Your task to perform on an android device: turn off sleep mode Image 0: 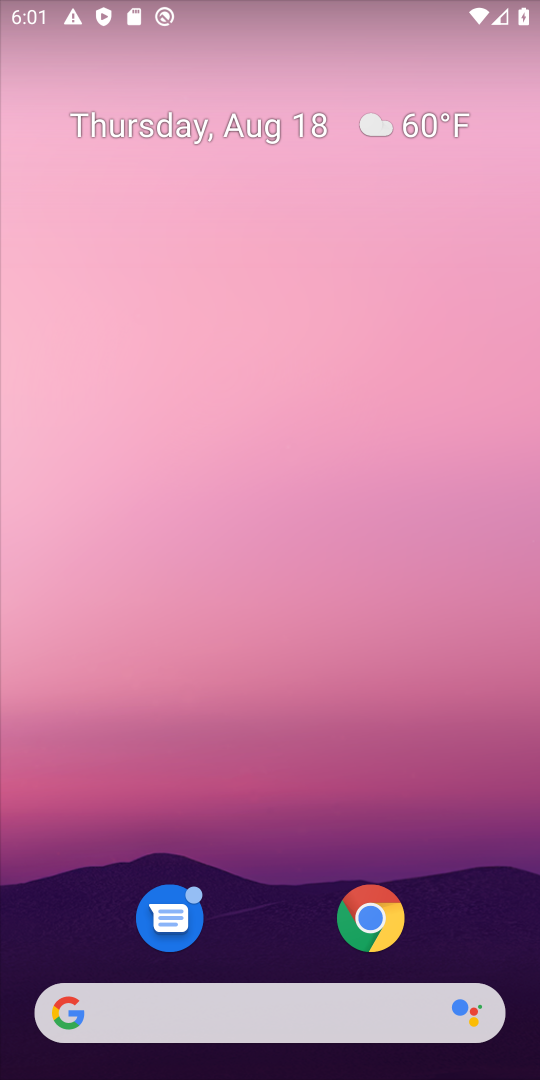
Step 0: drag from (301, 838) to (356, 26)
Your task to perform on an android device: turn off sleep mode Image 1: 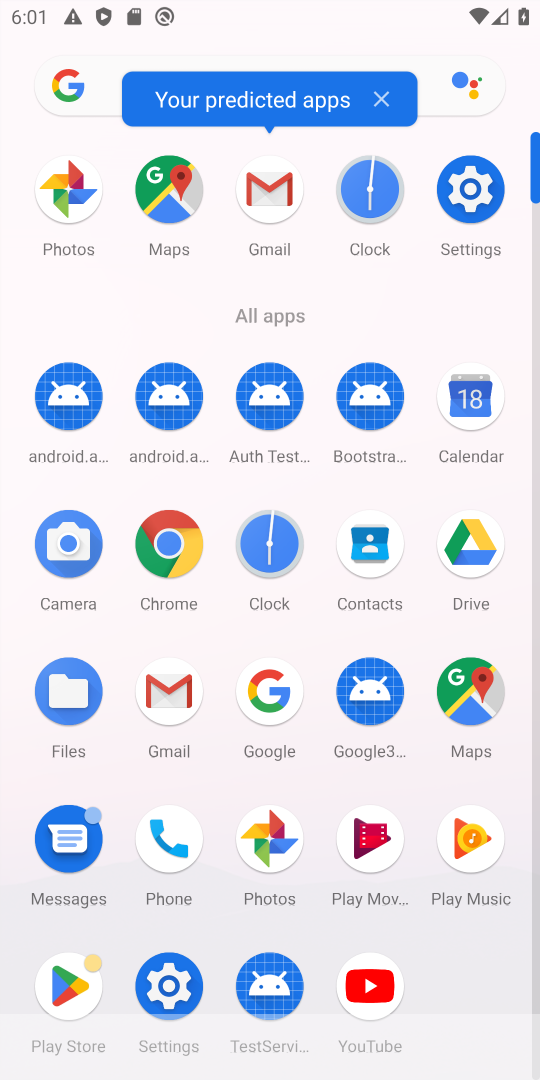
Step 1: click (472, 208)
Your task to perform on an android device: turn off sleep mode Image 2: 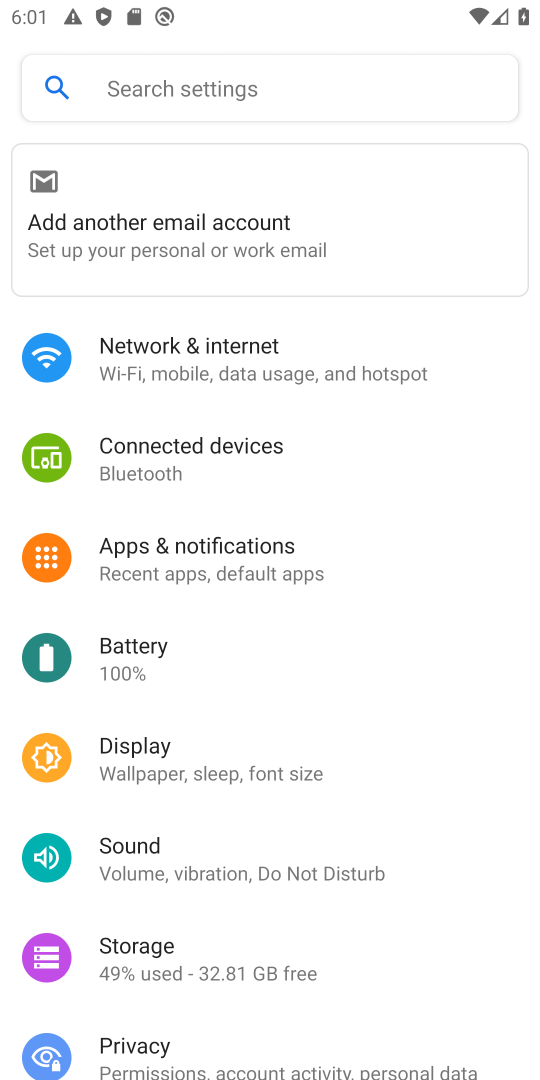
Step 2: click (137, 763)
Your task to perform on an android device: turn off sleep mode Image 3: 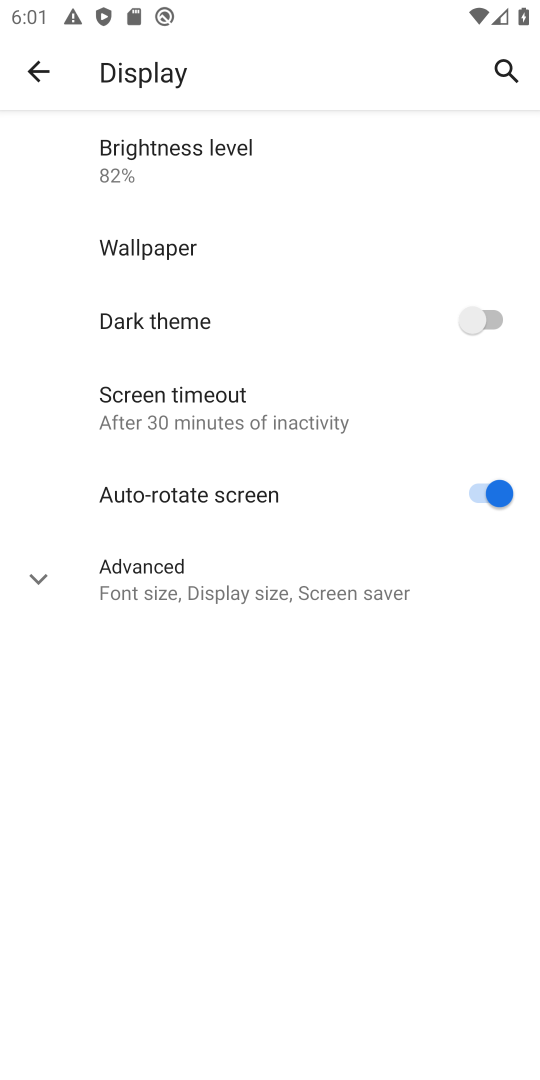
Step 3: task complete